Your task to perform on an android device: toggle sleep mode Image 0: 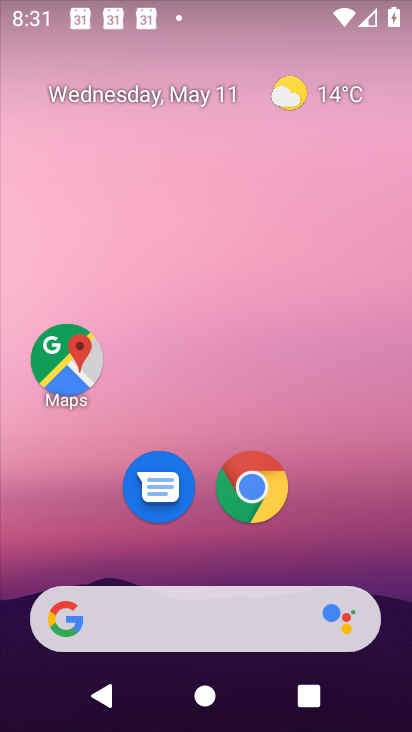
Step 0: drag from (227, 725) to (229, 204)
Your task to perform on an android device: toggle sleep mode Image 1: 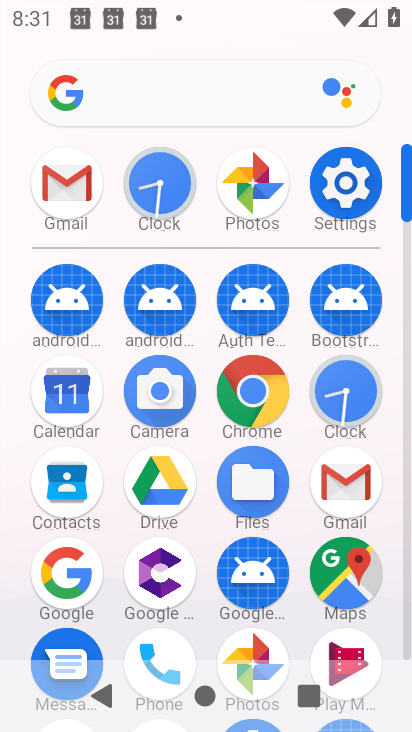
Step 1: click (350, 182)
Your task to perform on an android device: toggle sleep mode Image 2: 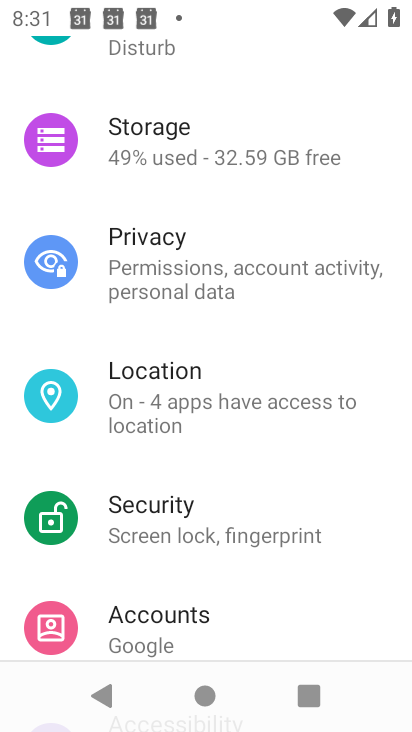
Step 2: drag from (277, 119) to (248, 520)
Your task to perform on an android device: toggle sleep mode Image 3: 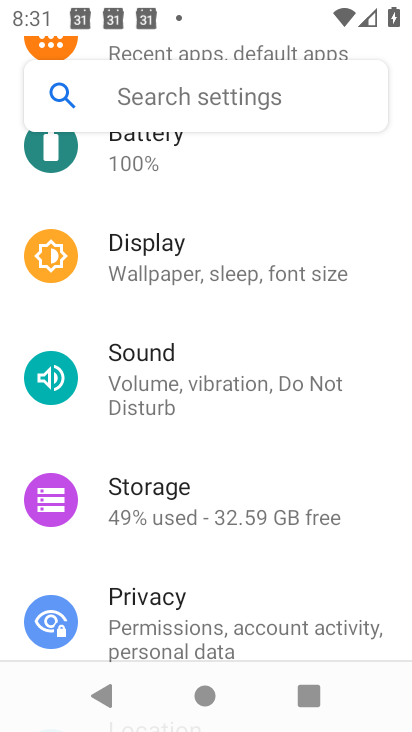
Step 3: click (210, 265)
Your task to perform on an android device: toggle sleep mode Image 4: 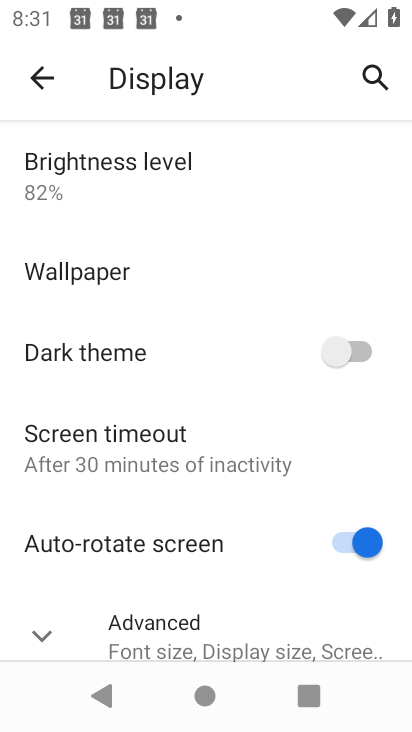
Step 4: drag from (279, 605) to (282, 176)
Your task to perform on an android device: toggle sleep mode Image 5: 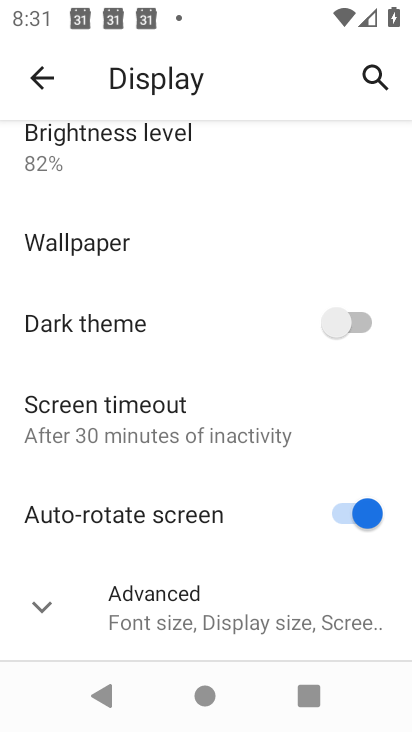
Step 5: click (43, 73)
Your task to perform on an android device: toggle sleep mode Image 6: 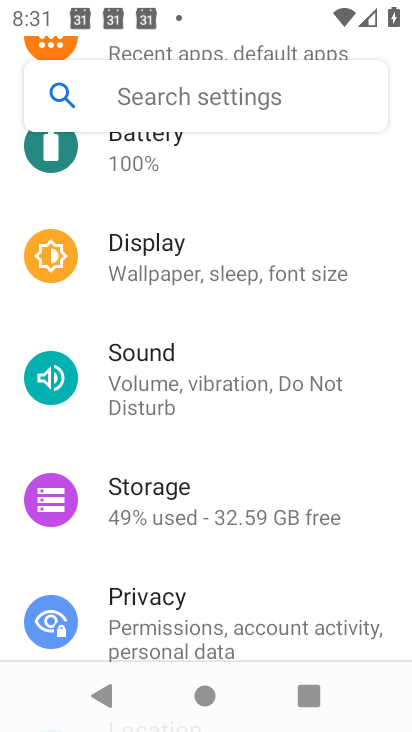
Step 6: task complete